Your task to perform on an android device: Search for Italian restaurants on Maps Image 0: 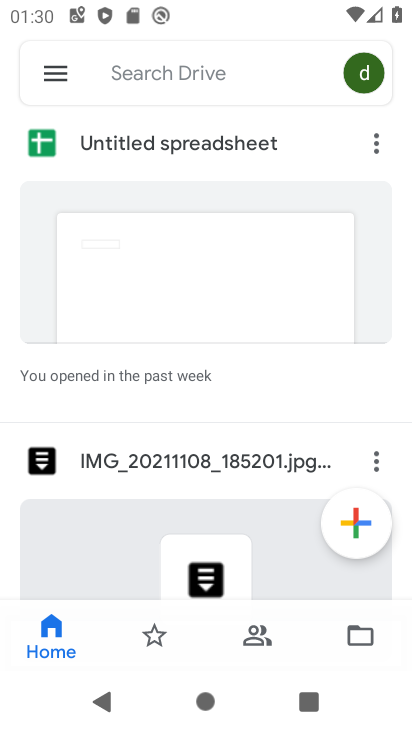
Step 0: press home button
Your task to perform on an android device: Search for Italian restaurants on Maps Image 1: 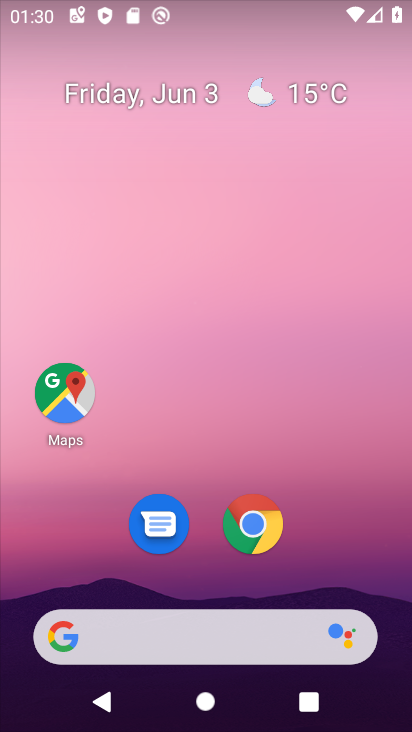
Step 1: click (58, 392)
Your task to perform on an android device: Search for Italian restaurants on Maps Image 2: 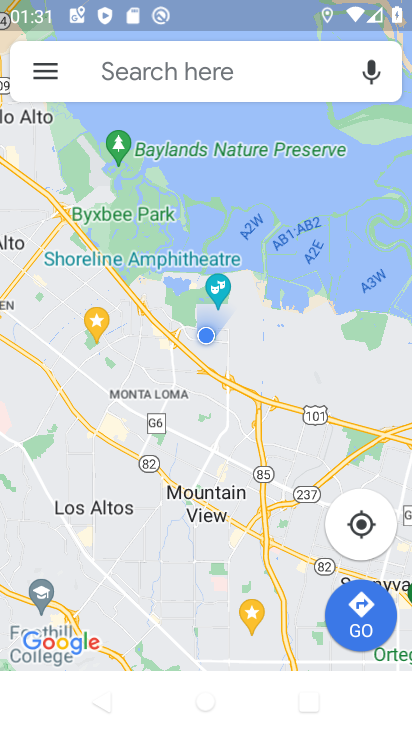
Step 2: click (219, 66)
Your task to perform on an android device: Search for Italian restaurants on Maps Image 3: 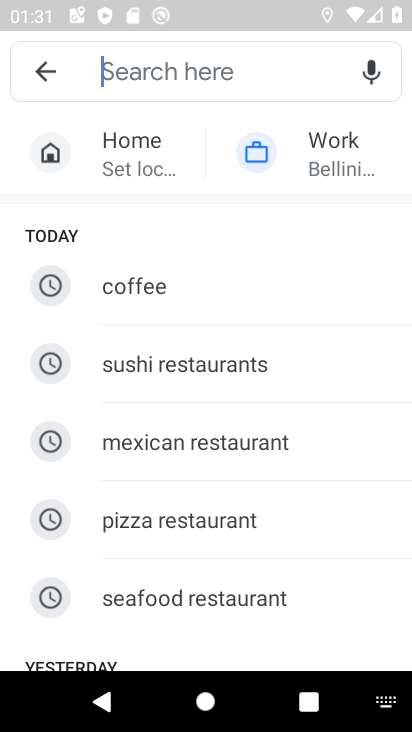
Step 3: type "italian restaurants"
Your task to perform on an android device: Search for Italian restaurants on Maps Image 4: 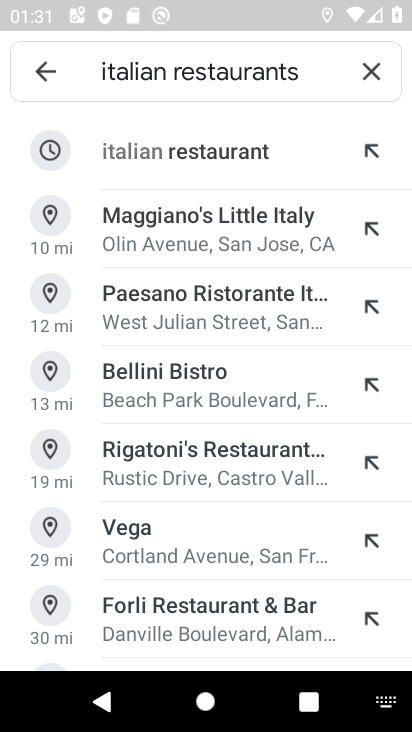
Step 4: click (238, 154)
Your task to perform on an android device: Search for Italian restaurants on Maps Image 5: 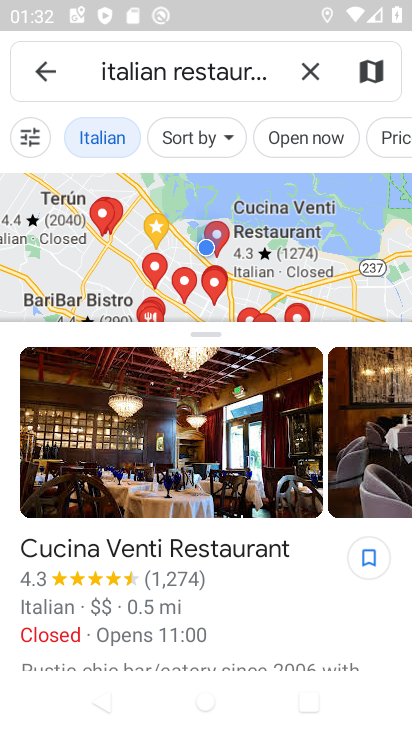
Step 5: task complete